Your task to perform on an android device: Is it going to rain this weekend? Image 0: 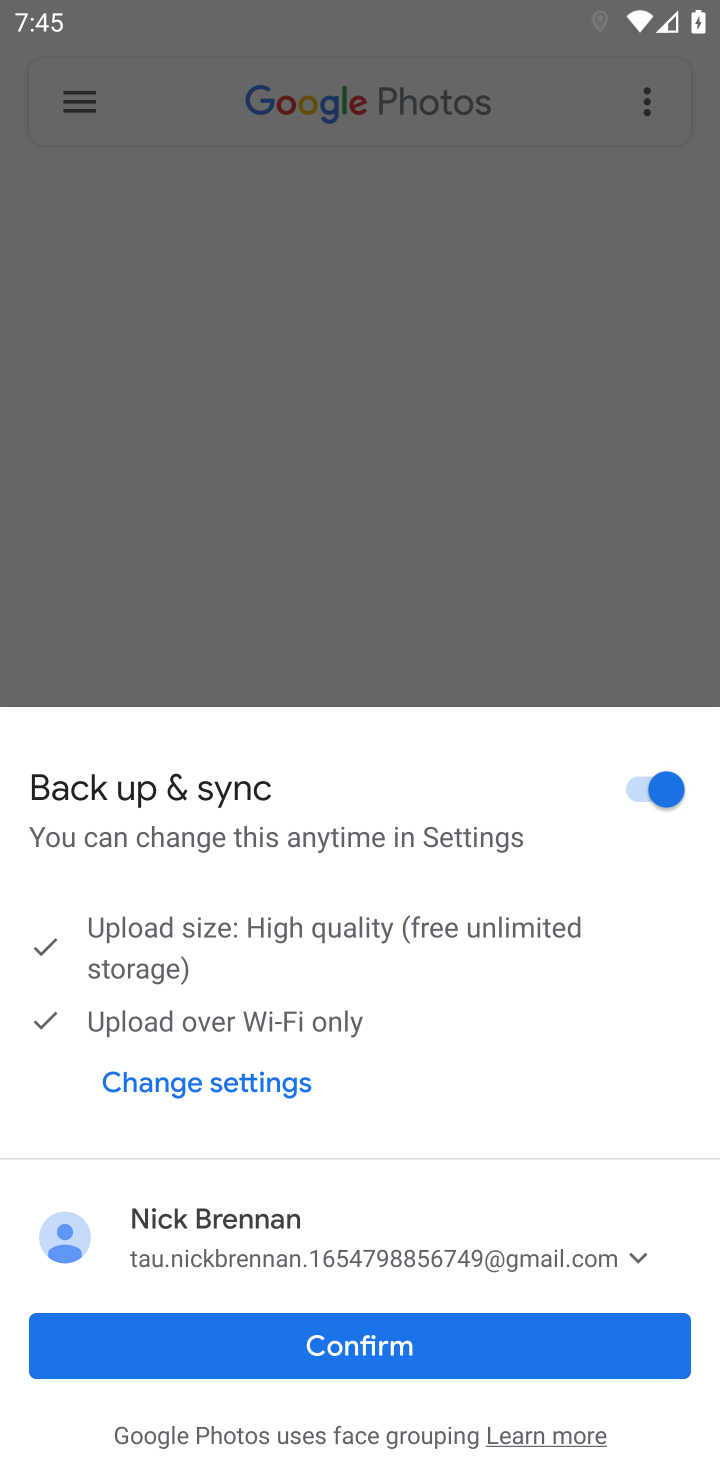
Step 0: press home button
Your task to perform on an android device: Is it going to rain this weekend? Image 1: 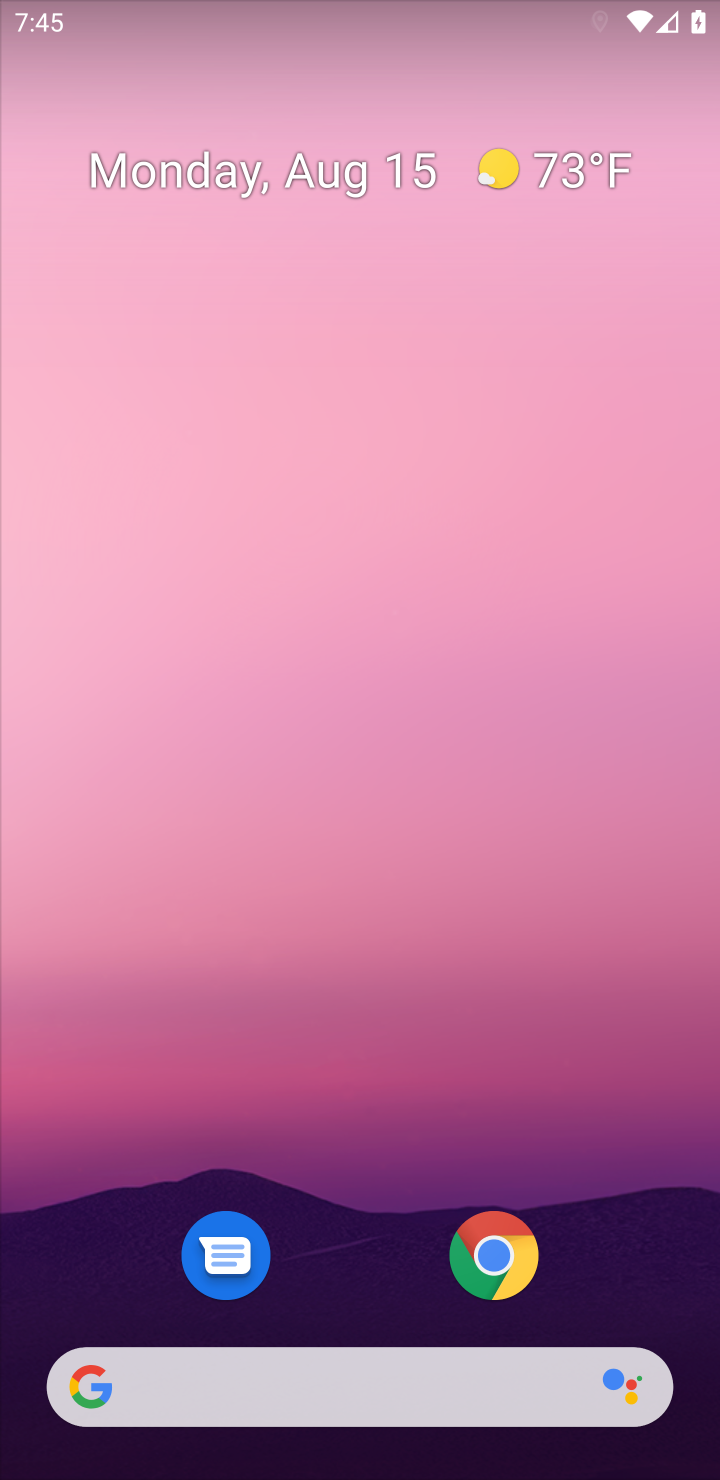
Step 1: click (563, 156)
Your task to perform on an android device: Is it going to rain this weekend? Image 2: 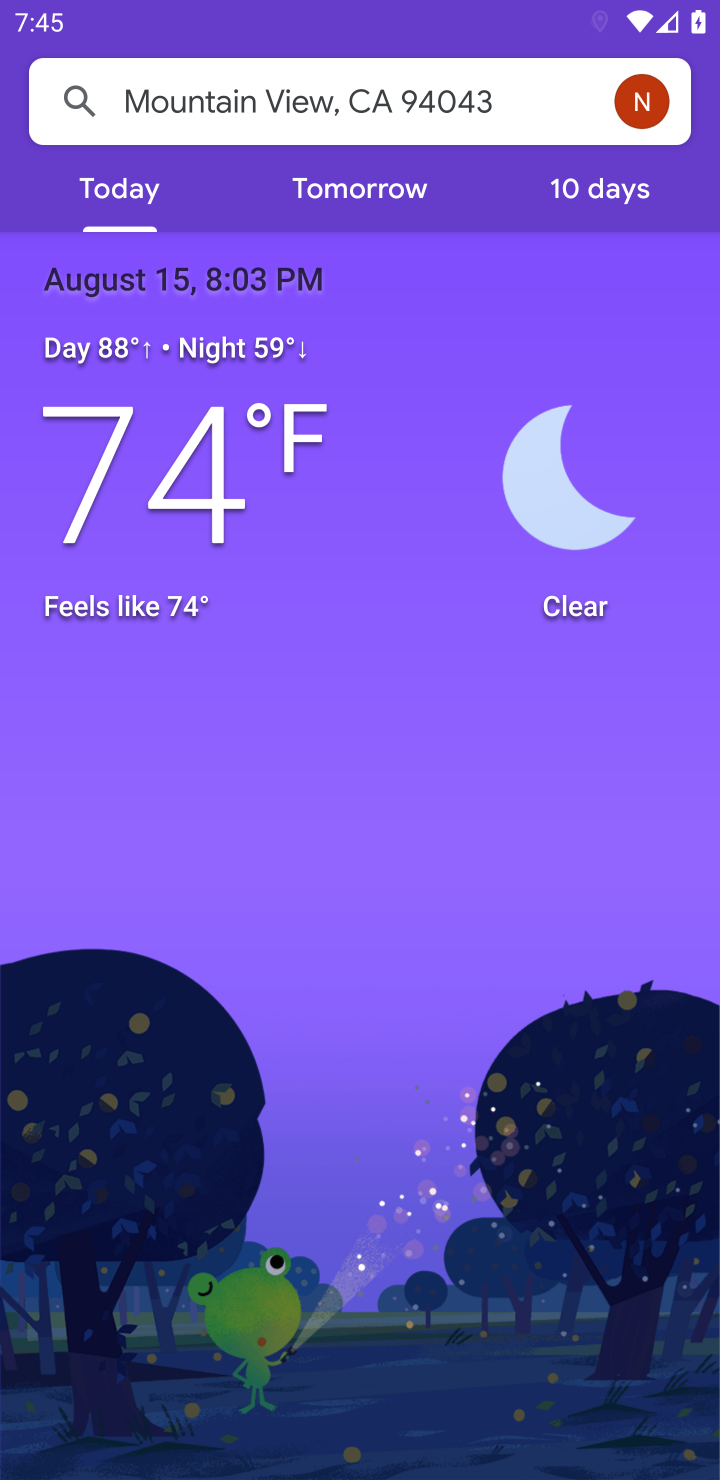
Step 2: click (578, 207)
Your task to perform on an android device: Is it going to rain this weekend? Image 3: 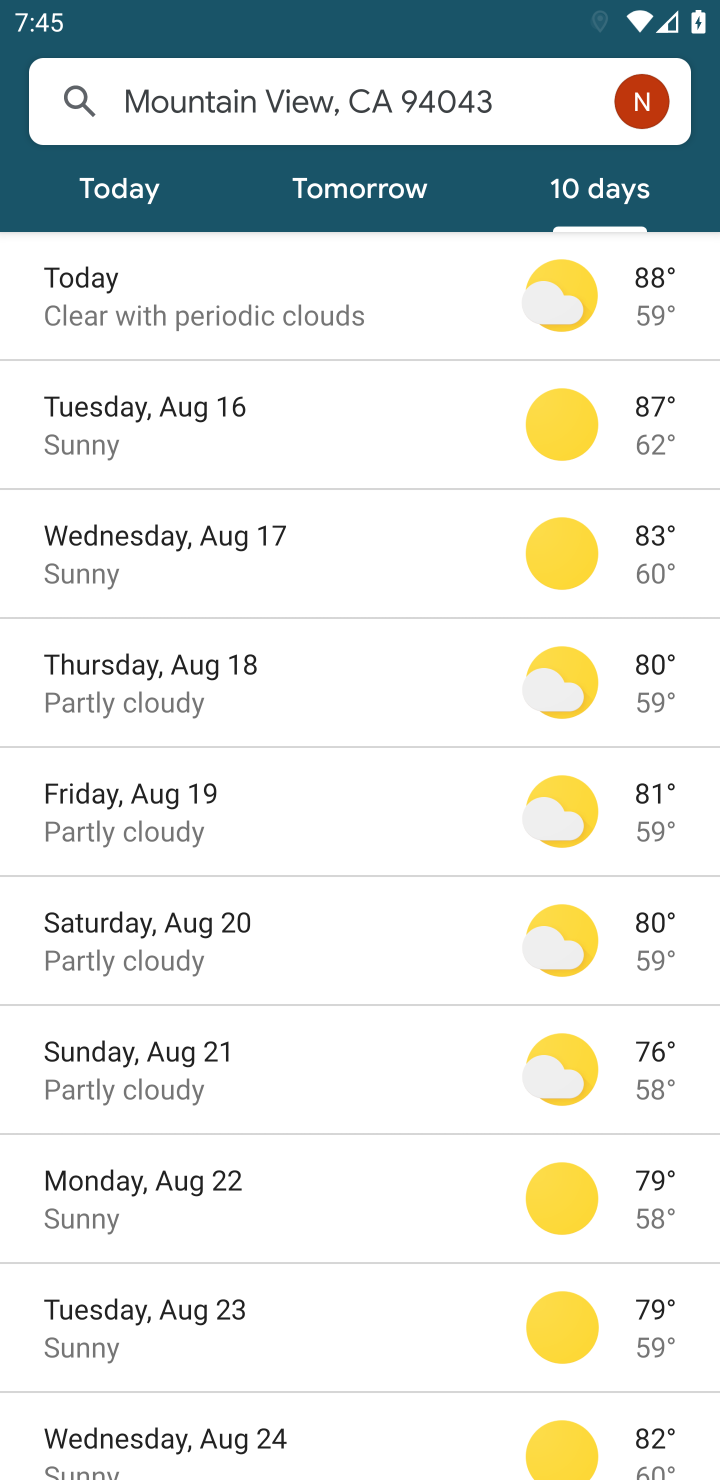
Step 3: click (142, 934)
Your task to perform on an android device: Is it going to rain this weekend? Image 4: 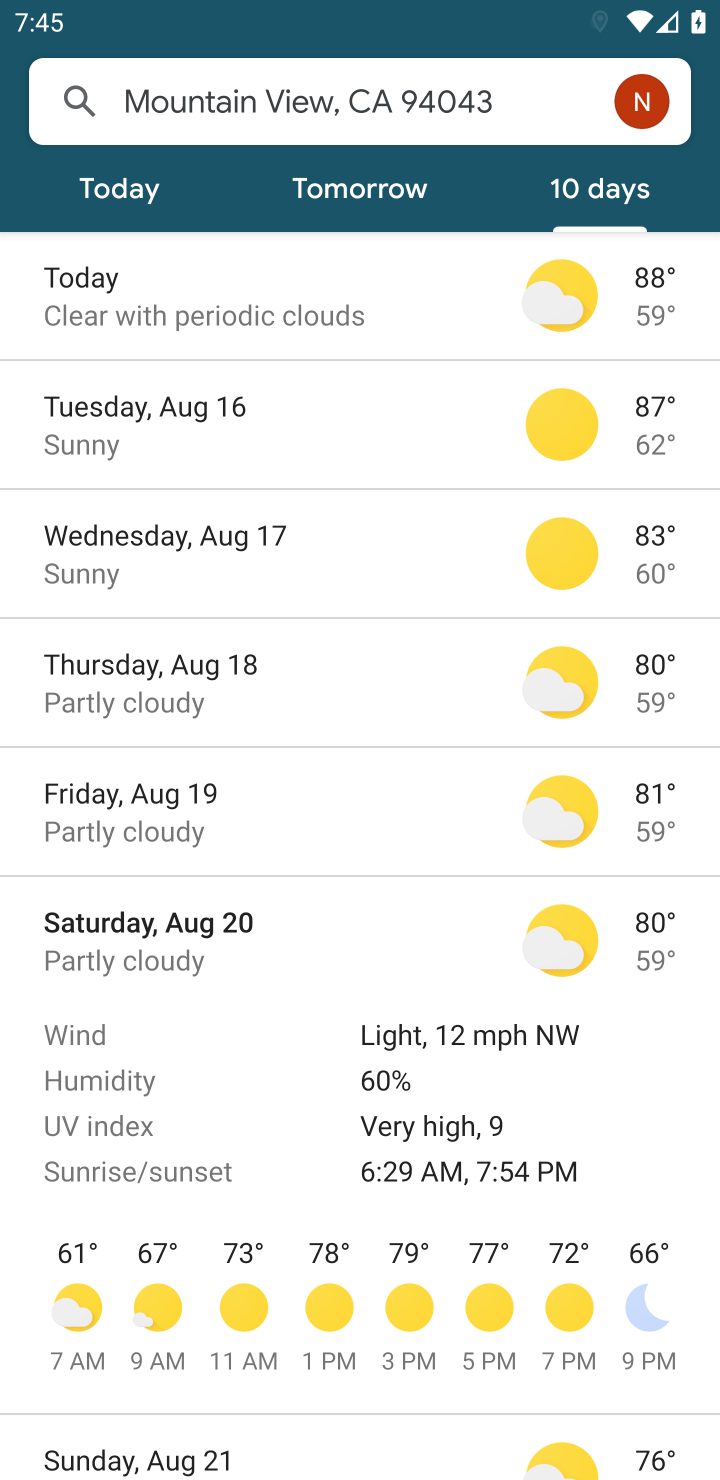
Step 4: click (220, 1455)
Your task to perform on an android device: Is it going to rain this weekend? Image 5: 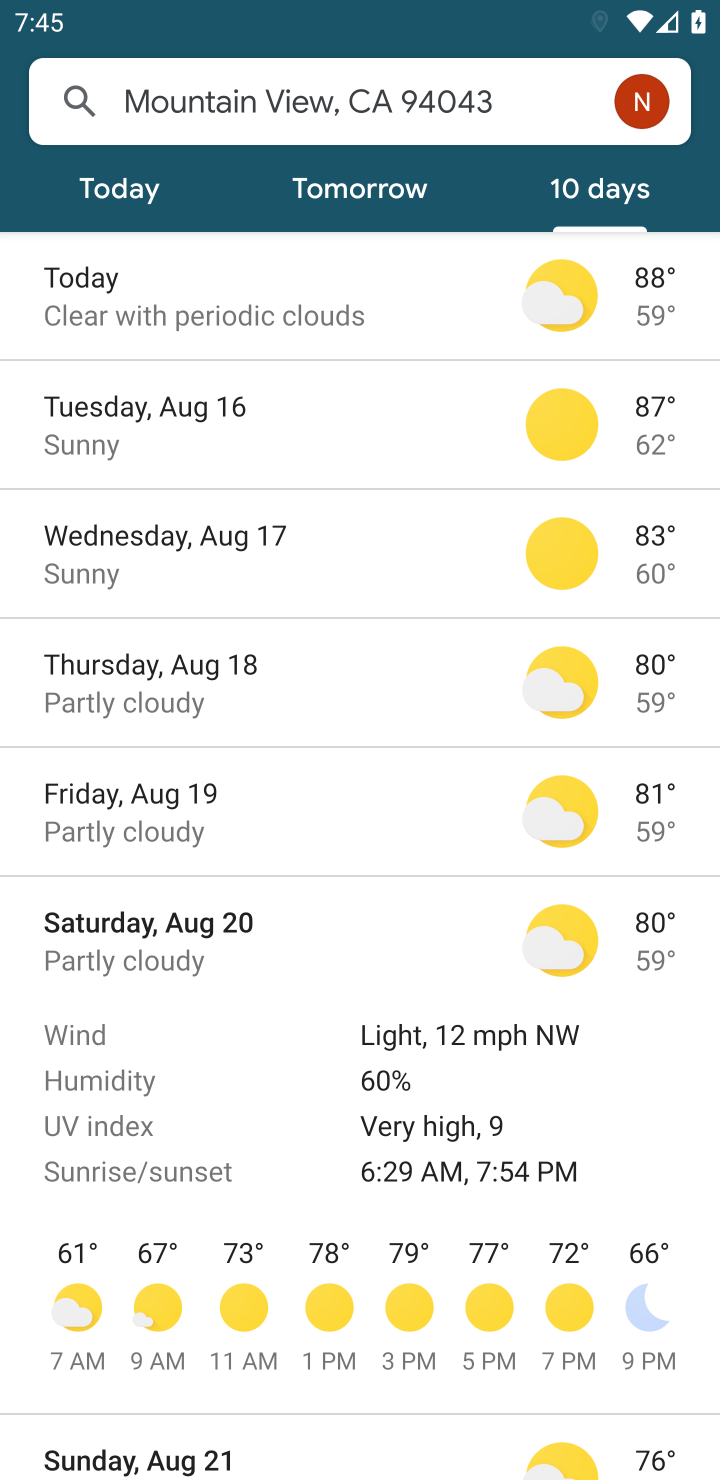
Step 5: task complete